Your task to perform on an android device: change the clock style Image 0: 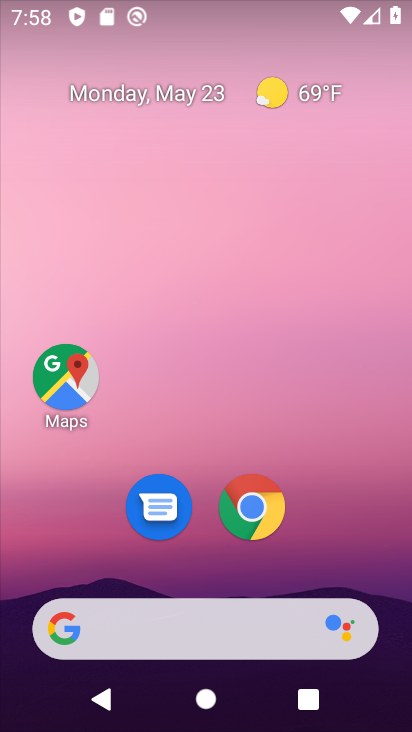
Step 0: drag from (353, 584) to (323, 8)
Your task to perform on an android device: change the clock style Image 1: 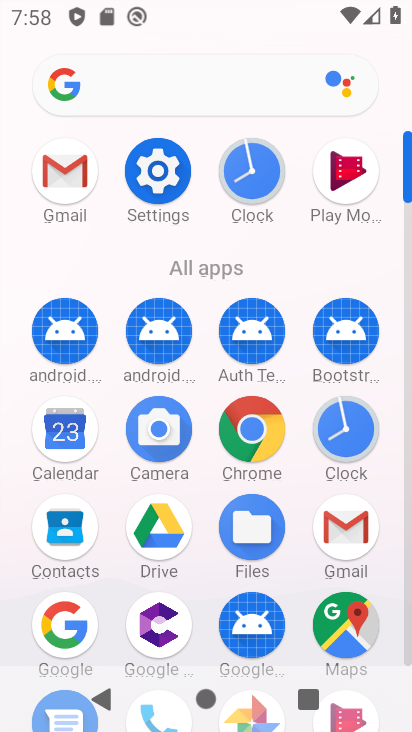
Step 1: click (251, 181)
Your task to perform on an android device: change the clock style Image 2: 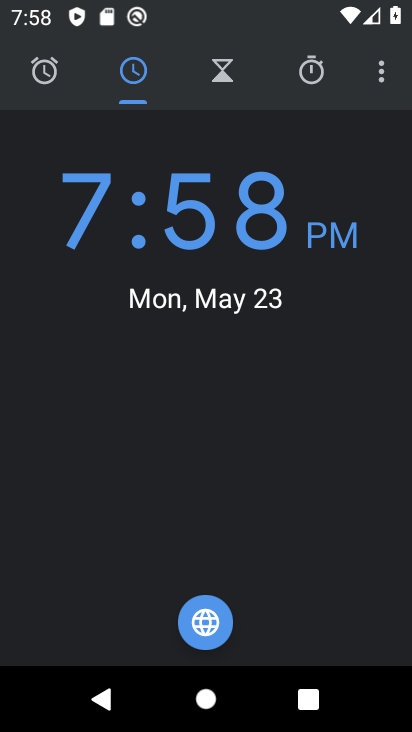
Step 2: click (388, 77)
Your task to perform on an android device: change the clock style Image 3: 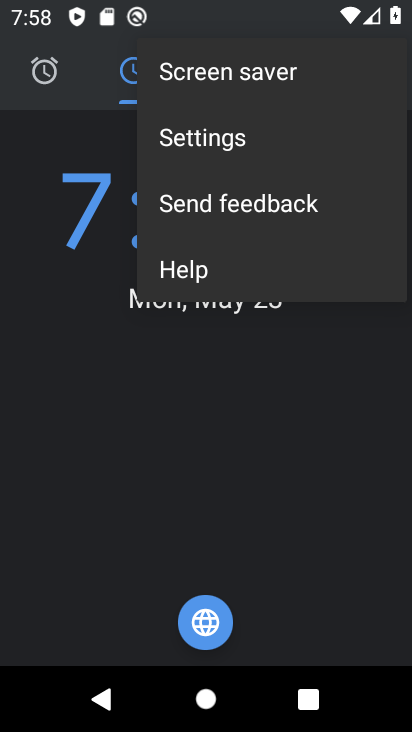
Step 3: click (194, 140)
Your task to perform on an android device: change the clock style Image 4: 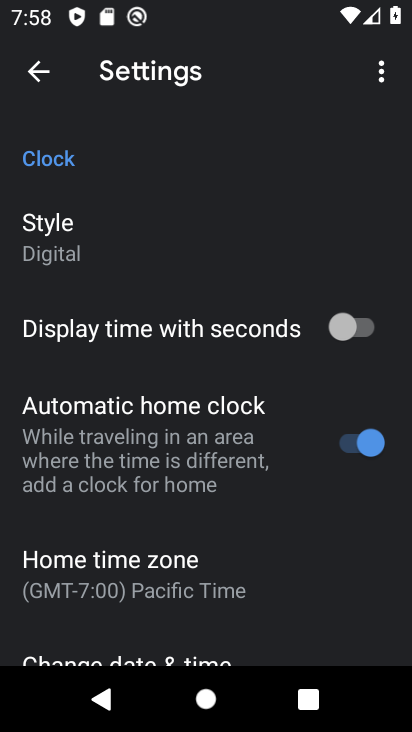
Step 4: click (67, 248)
Your task to perform on an android device: change the clock style Image 5: 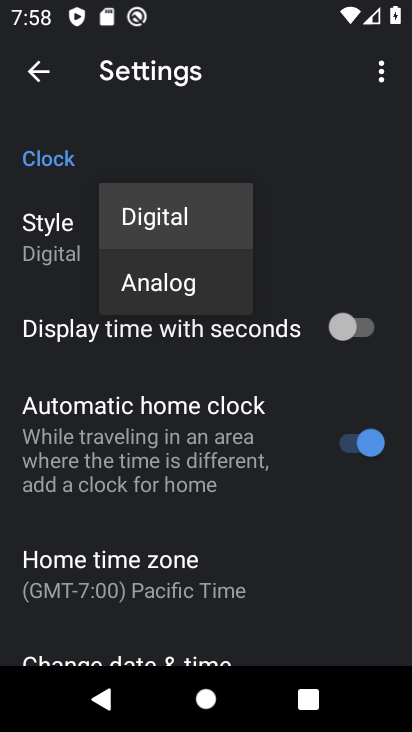
Step 5: click (143, 292)
Your task to perform on an android device: change the clock style Image 6: 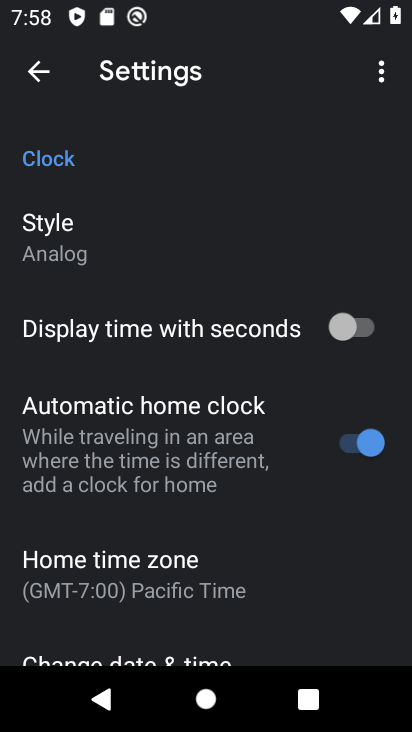
Step 6: task complete